Your task to perform on an android device: Open the map Image 0: 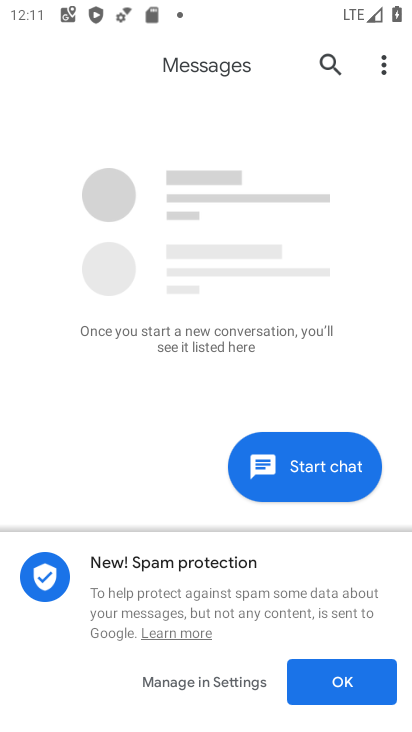
Step 0: press home button
Your task to perform on an android device: Open the map Image 1: 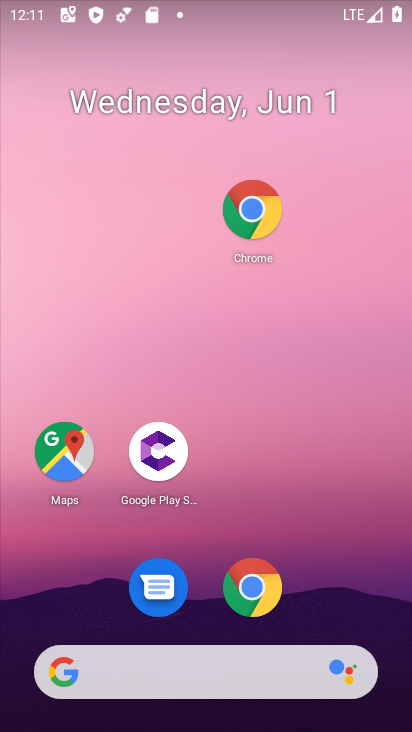
Step 1: click (47, 464)
Your task to perform on an android device: Open the map Image 2: 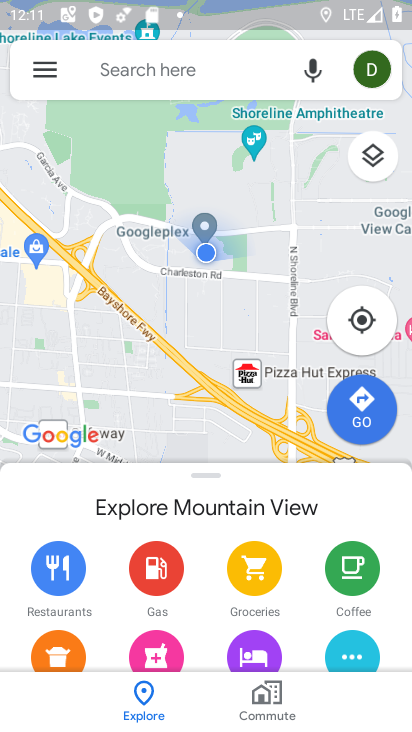
Step 2: task complete